Your task to perform on an android device: Go to wifi settings Image 0: 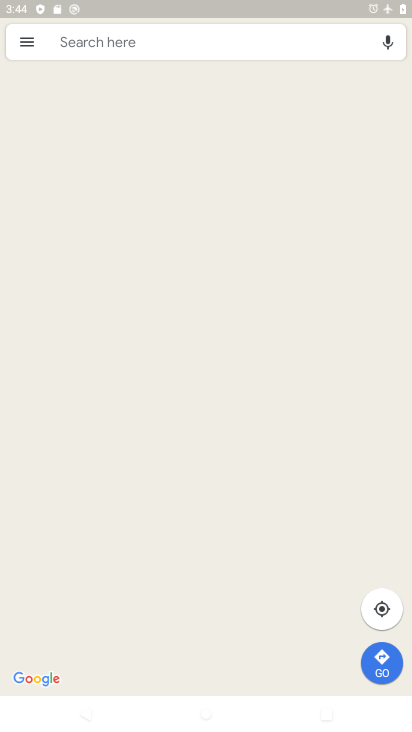
Step 0: press home button
Your task to perform on an android device: Go to wifi settings Image 1: 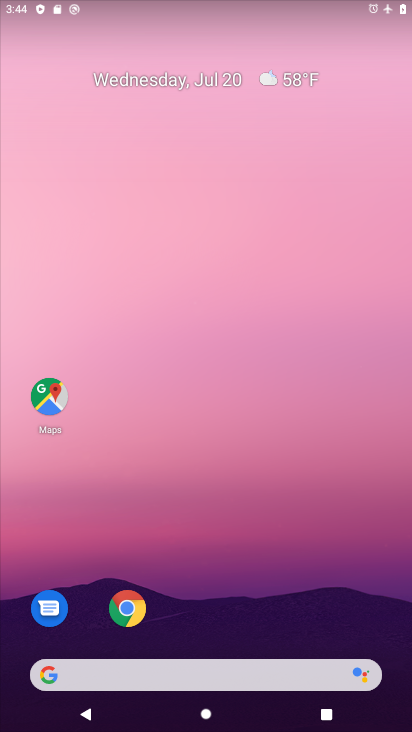
Step 1: drag from (162, 606) to (220, 216)
Your task to perform on an android device: Go to wifi settings Image 2: 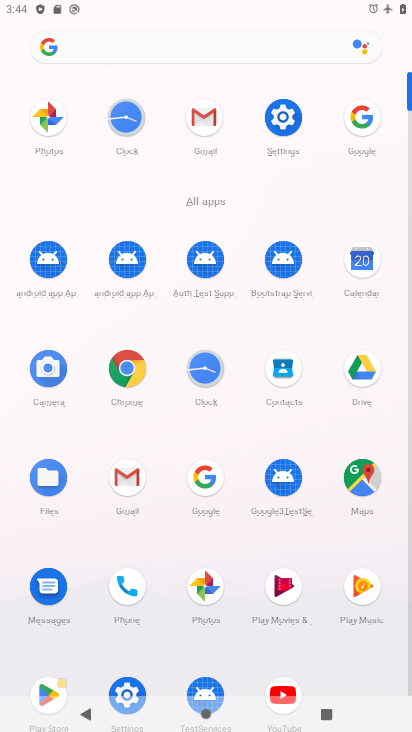
Step 2: click (287, 127)
Your task to perform on an android device: Go to wifi settings Image 3: 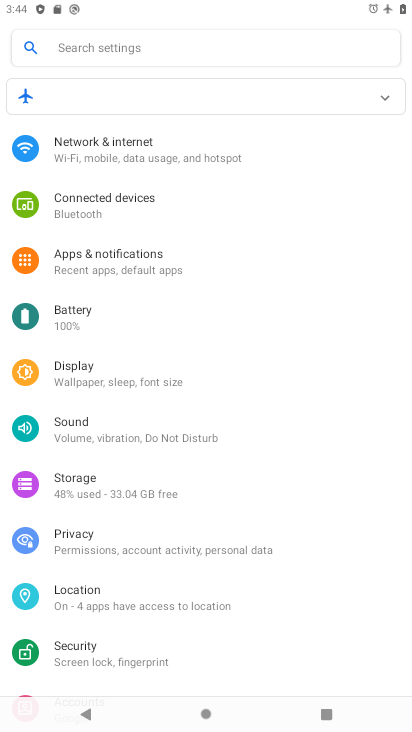
Step 3: click (91, 158)
Your task to perform on an android device: Go to wifi settings Image 4: 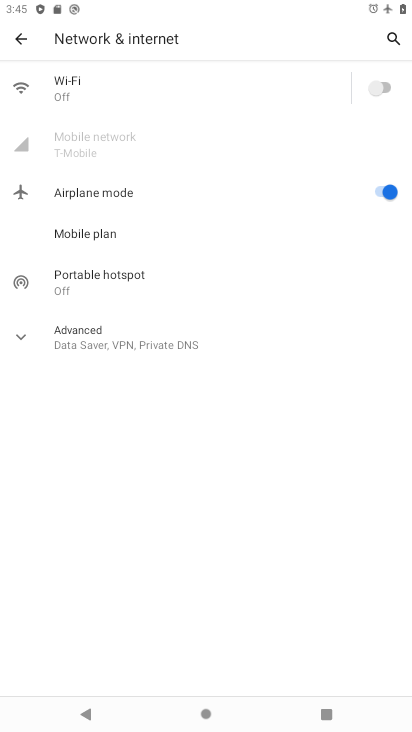
Step 4: click (82, 76)
Your task to perform on an android device: Go to wifi settings Image 5: 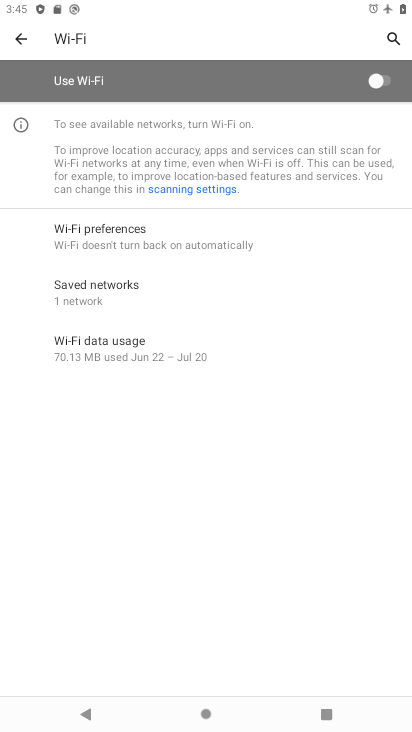
Step 5: press home button
Your task to perform on an android device: Go to wifi settings Image 6: 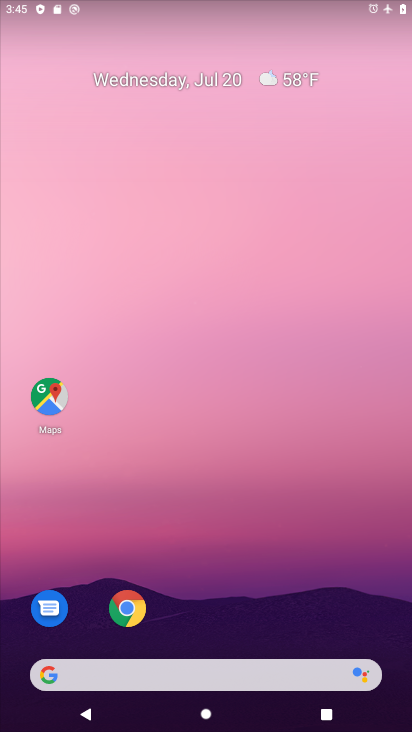
Step 6: drag from (202, 604) to (202, 159)
Your task to perform on an android device: Go to wifi settings Image 7: 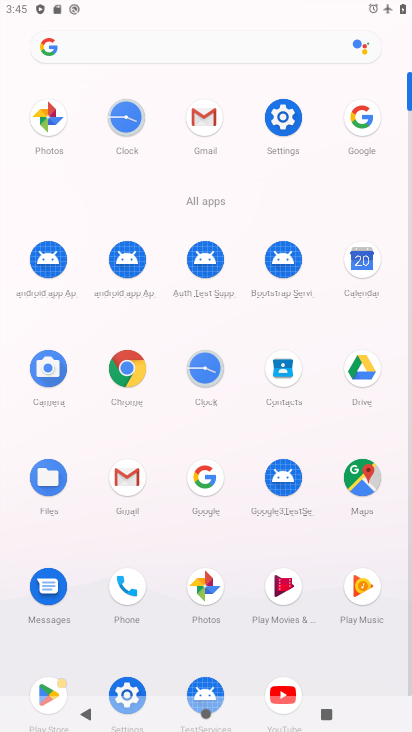
Step 7: click (284, 110)
Your task to perform on an android device: Go to wifi settings Image 8: 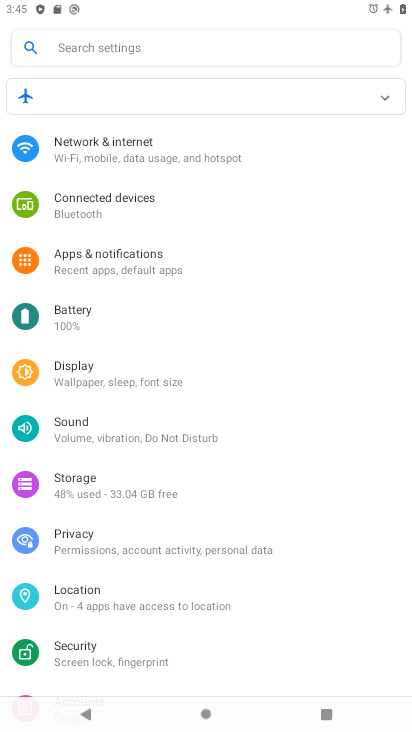
Step 8: click (121, 140)
Your task to perform on an android device: Go to wifi settings Image 9: 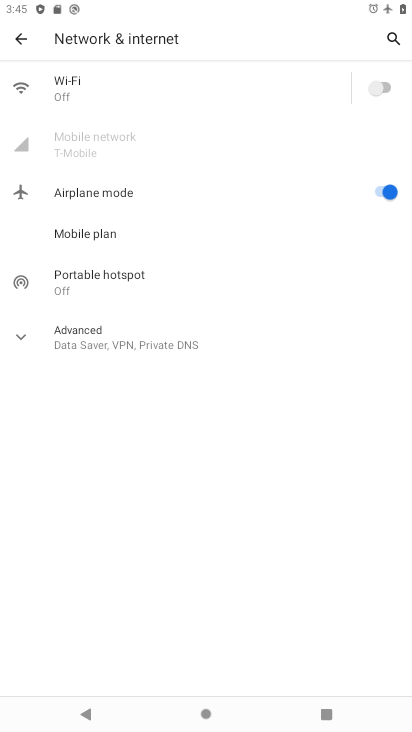
Step 9: click (85, 79)
Your task to perform on an android device: Go to wifi settings Image 10: 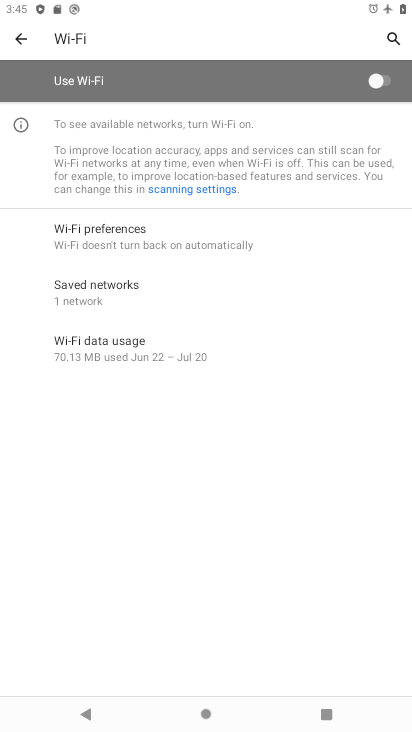
Step 10: task complete